Your task to perform on an android device: choose inbox layout in the gmail app Image 0: 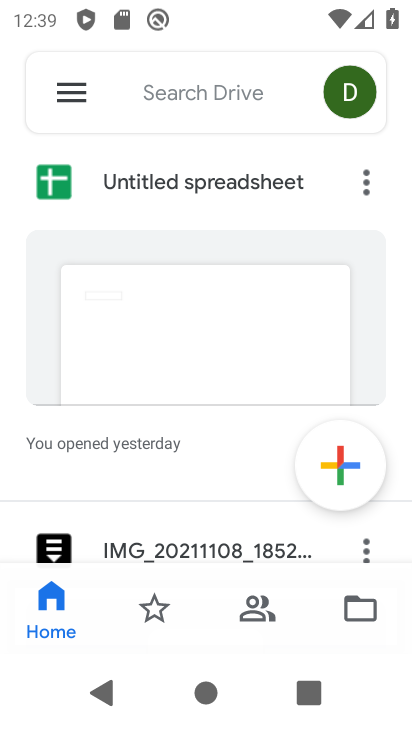
Step 0: press home button
Your task to perform on an android device: choose inbox layout in the gmail app Image 1: 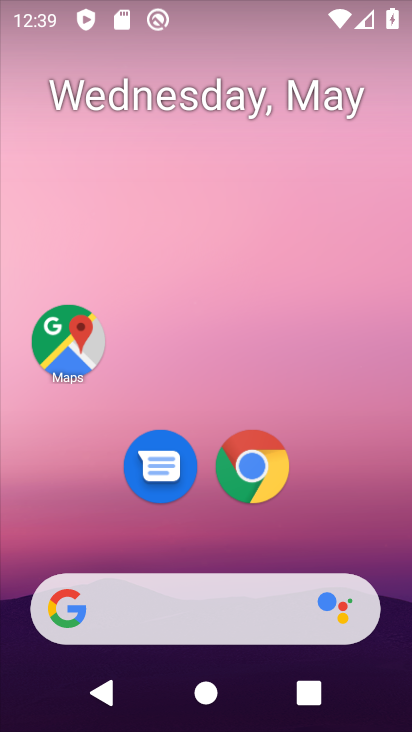
Step 1: drag from (222, 510) to (221, 83)
Your task to perform on an android device: choose inbox layout in the gmail app Image 2: 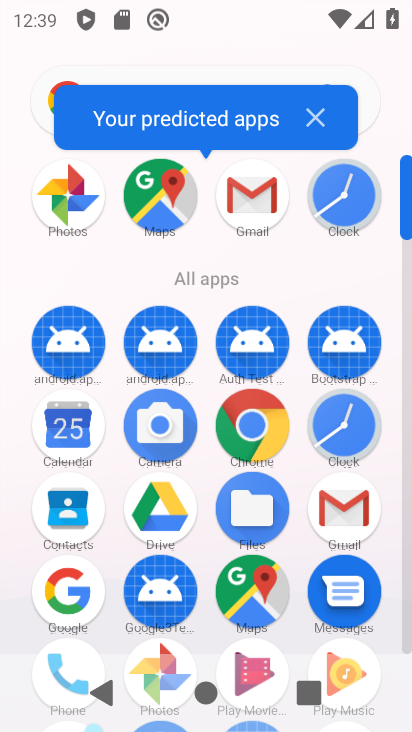
Step 2: click (250, 193)
Your task to perform on an android device: choose inbox layout in the gmail app Image 3: 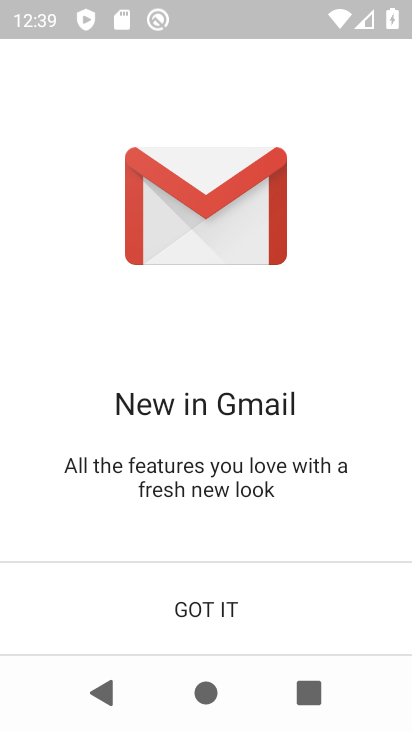
Step 3: click (215, 608)
Your task to perform on an android device: choose inbox layout in the gmail app Image 4: 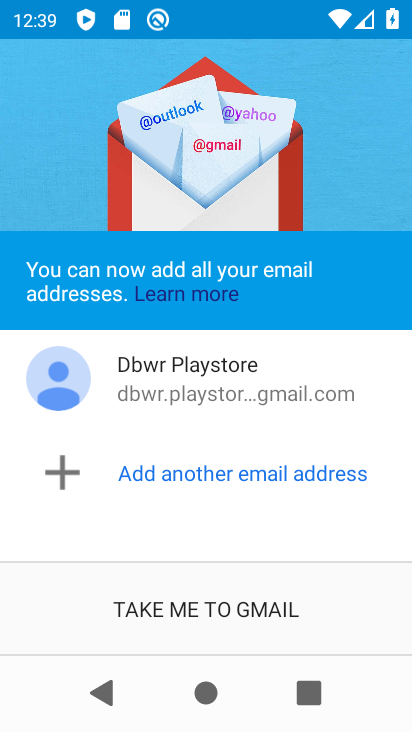
Step 4: click (215, 608)
Your task to perform on an android device: choose inbox layout in the gmail app Image 5: 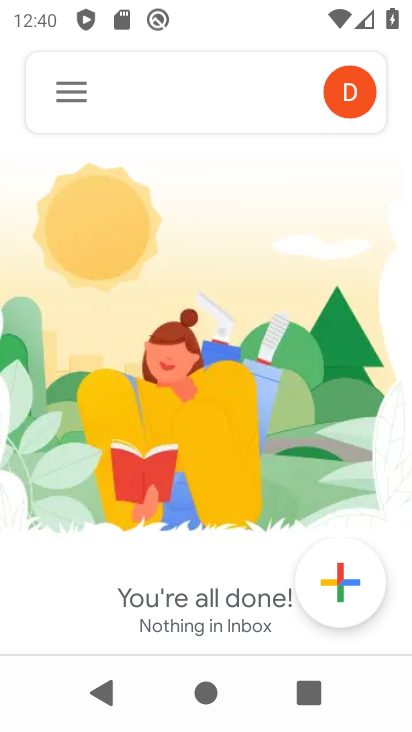
Step 5: click (69, 96)
Your task to perform on an android device: choose inbox layout in the gmail app Image 6: 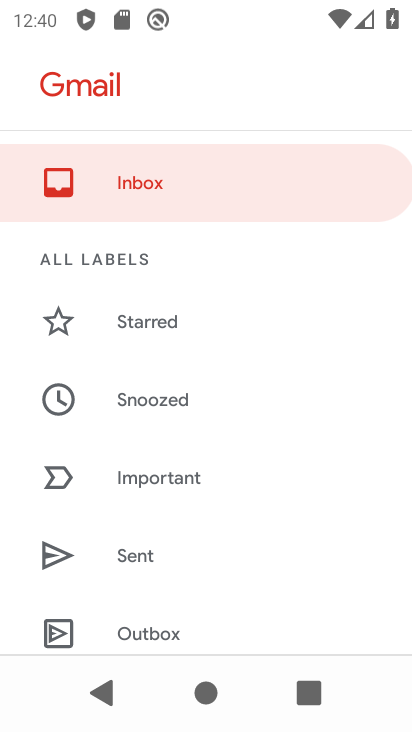
Step 6: drag from (222, 550) to (248, 184)
Your task to perform on an android device: choose inbox layout in the gmail app Image 7: 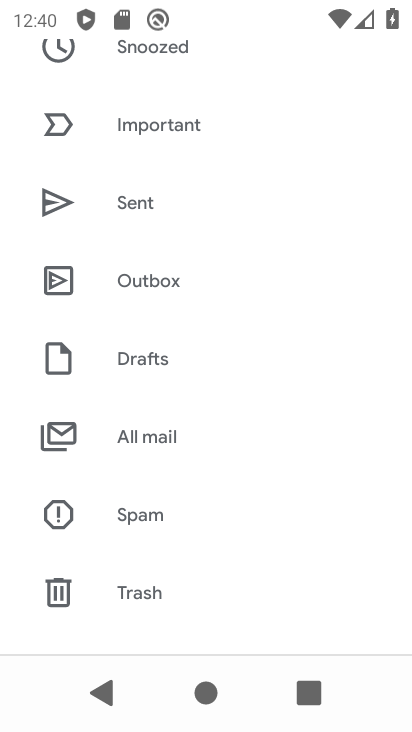
Step 7: drag from (248, 594) to (260, 170)
Your task to perform on an android device: choose inbox layout in the gmail app Image 8: 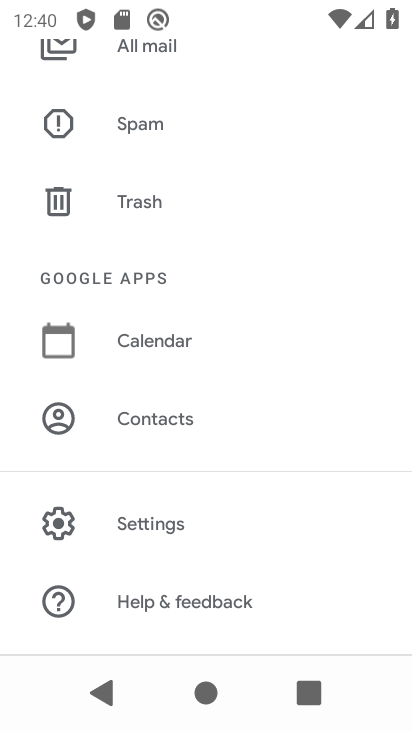
Step 8: click (153, 520)
Your task to perform on an android device: choose inbox layout in the gmail app Image 9: 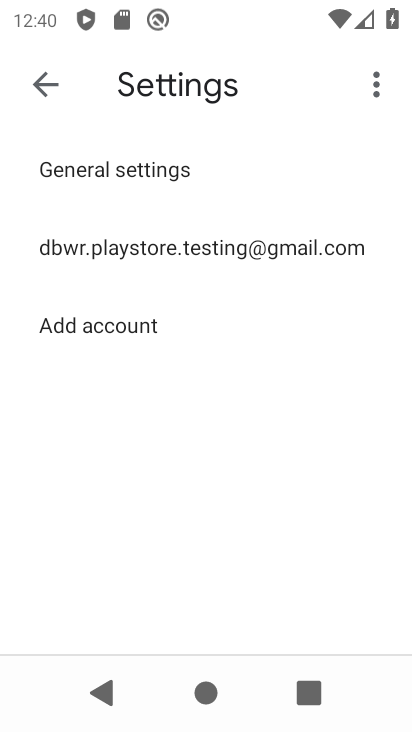
Step 9: click (216, 243)
Your task to perform on an android device: choose inbox layout in the gmail app Image 10: 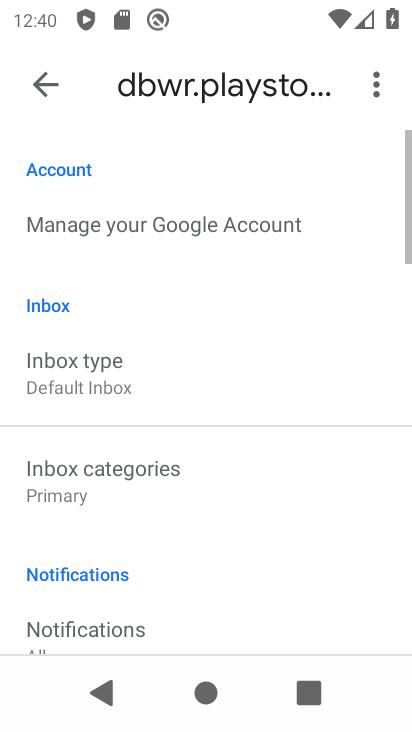
Step 10: drag from (239, 586) to (262, 396)
Your task to perform on an android device: choose inbox layout in the gmail app Image 11: 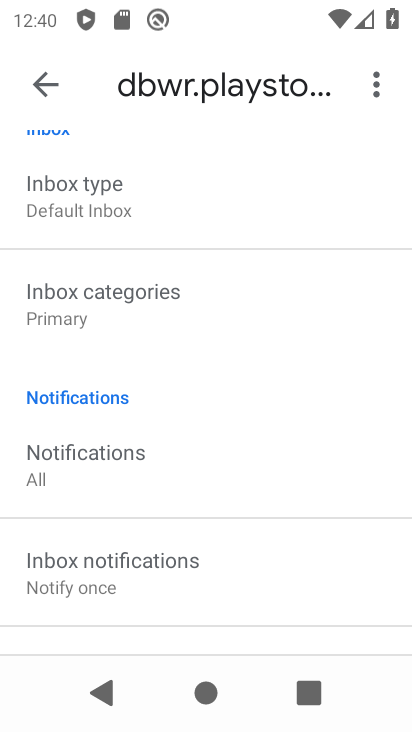
Step 11: click (110, 205)
Your task to perform on an android device: choose inbox layout in the gmail app Image 12: 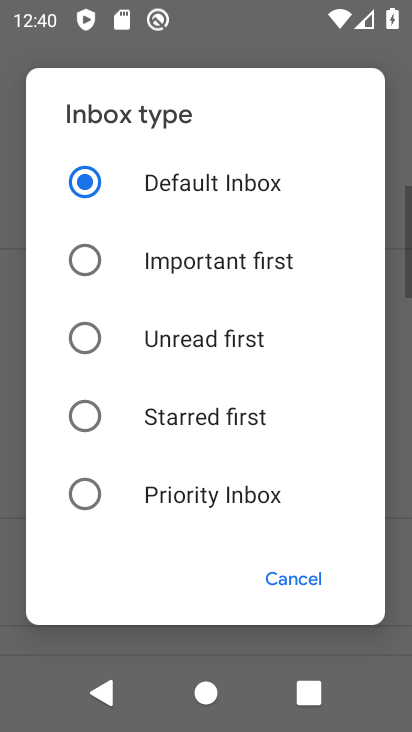
Step 12: click (81, 252)
Your task to perform on an android device: choose inbox layout in the gmail app Image 13: 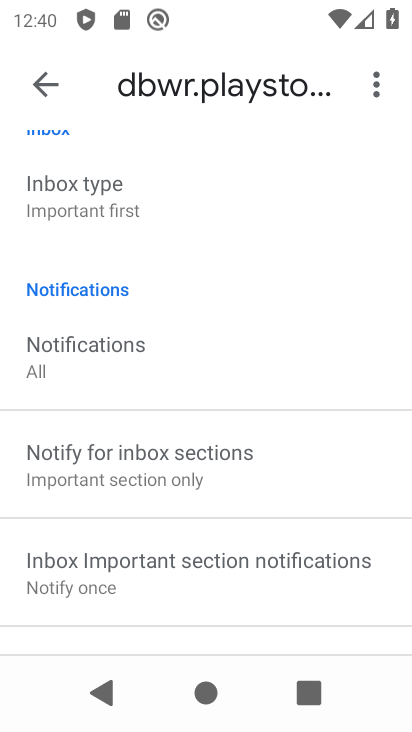
Step 13: task complete